Your task to perform on an android device: check the backup settings in the google photos Image 0: 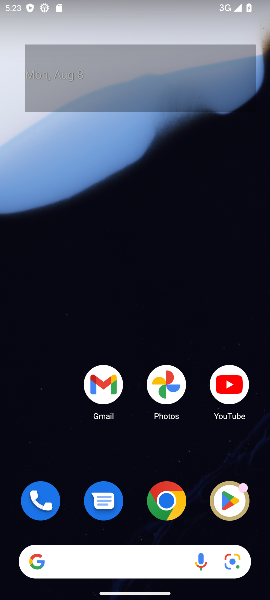
Step 0: click (199, 284)
Your task to perform on an android device: check the backup settings in the google photos Image 1: 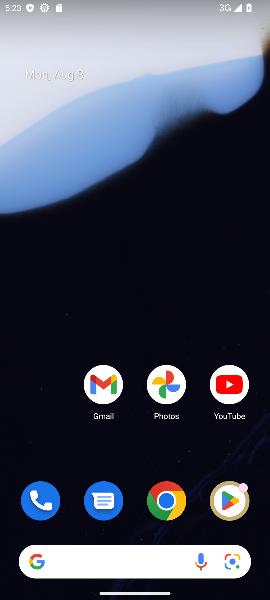
Step 1: click (170, 390)
Your task to perform on an android device: check the backup settings in the google photos Image 2: 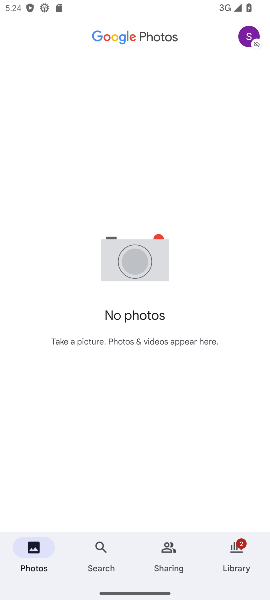
Step 2: click (256, 38)
Your task to perform on an android device: check the backup settings in the google photos Image 3: 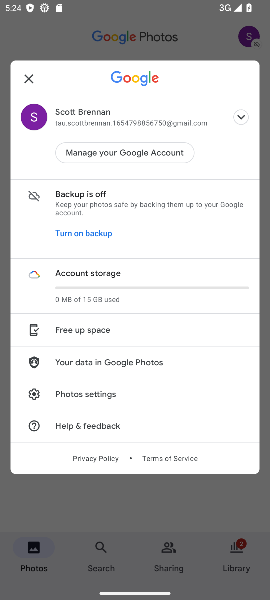
Step 3: click (109, 212)
Your task to perform on an android device: check the backup settings in the google photos Image 4: 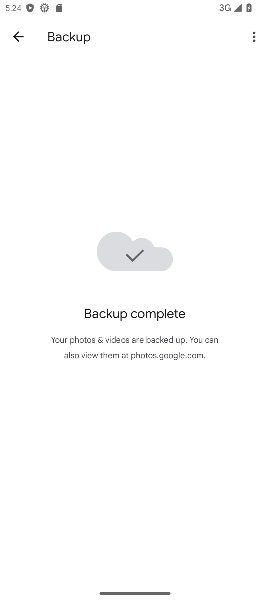
Step 4: press home button
Your task to perform on an android device: check the backup settings in the google photos Image 5: 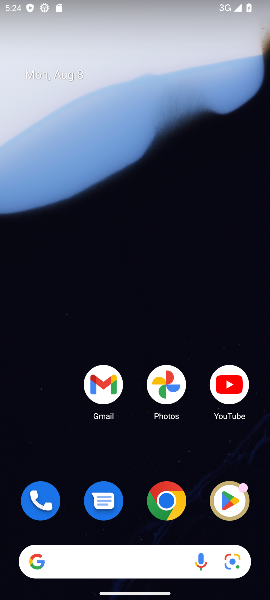
Step 5: click (165, 383)
Your task to perform on an android device: check the backup settings in the google photos Image 6: 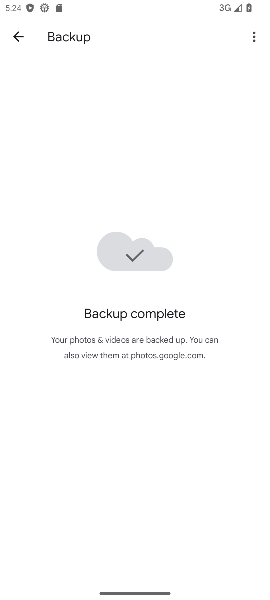
Step 6: task complete